Your task to perform on an android device: Open the Play Movies app and select the watchlist tab. Image 0: 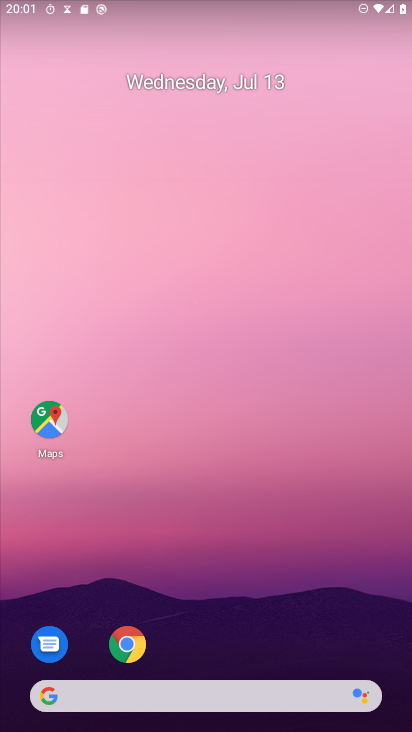
Step 0: drag from (277, 621) to (286, 165)
Your task to perform on an android device: Open the Play Movies app and select the watchlist tab. Image 1: 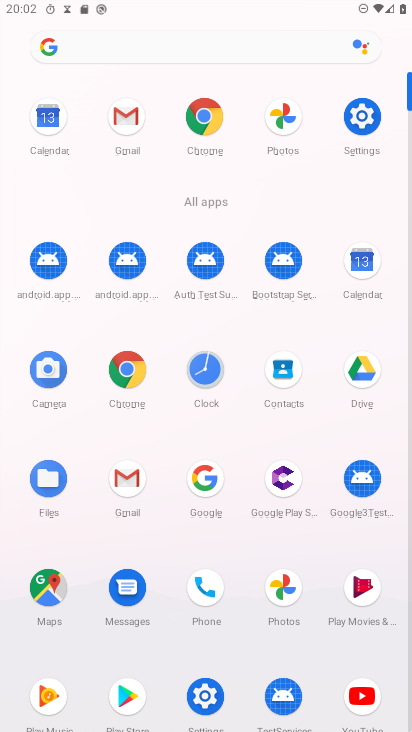
Step 1: click (365, 589)
Your task to perform on an android device: Open the Play Movies app and select the watchlist tab. Image 2: 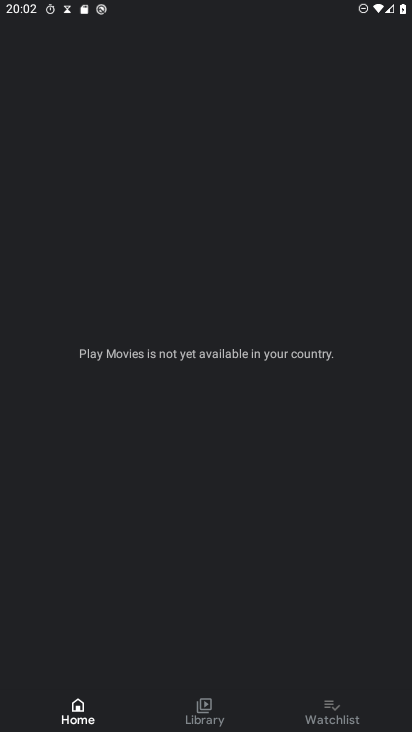
Step 2: click (357, 711)
Your task to perform on an android device: Open the Play Movies app and select the watchlist tab. Image 3: 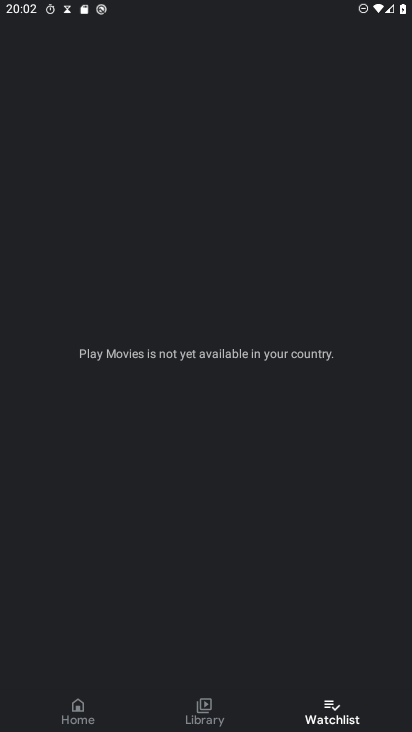
Step 3: task complete